Your task to perform on an android device: show emergency info Image 0: 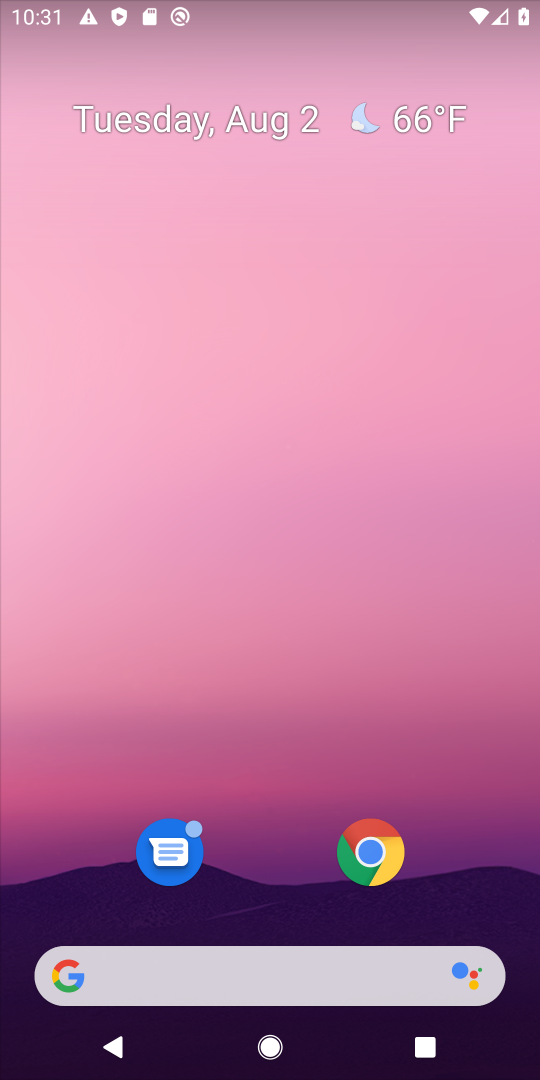
Step 0: drag from (492, 892) to (331, 118)
Your task to perform on an android device: show emergency info Image 1: 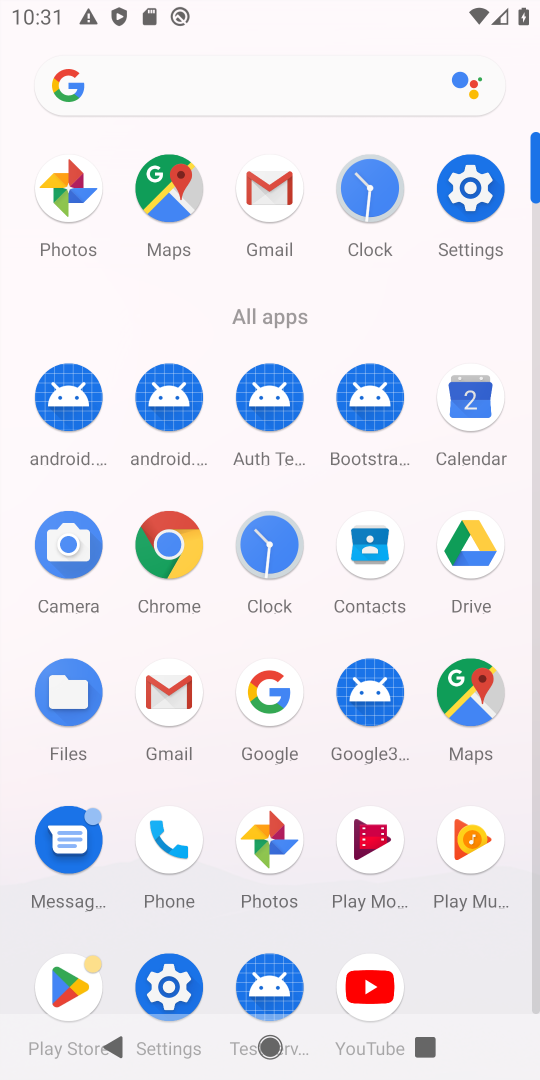
Step 1: click (456, 194)
Your task to perform on an android device: show emergency info Image 2: 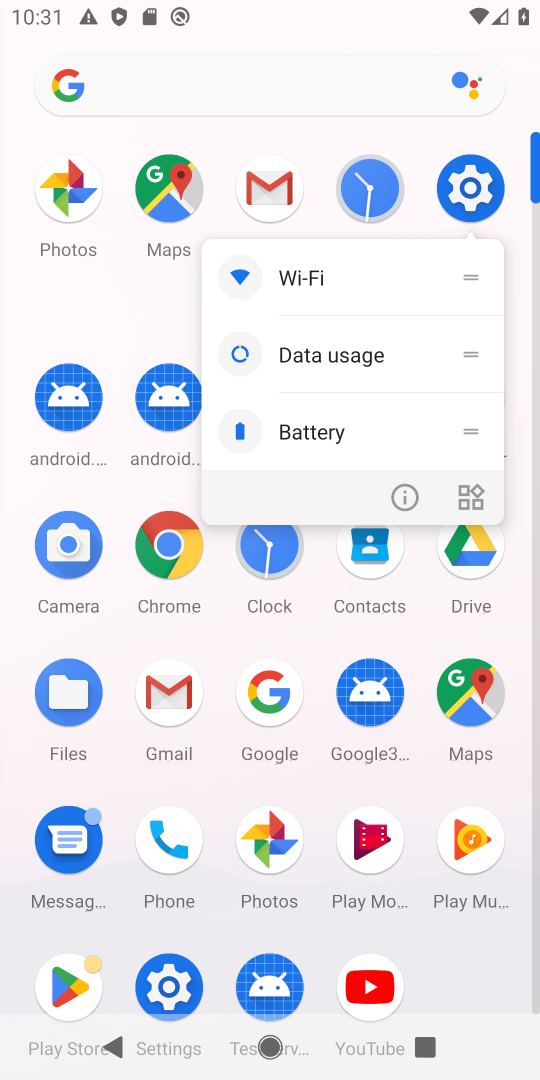
Step 2: click (475, 196)
Your task to perform on an android device: show emergency info Image 3: 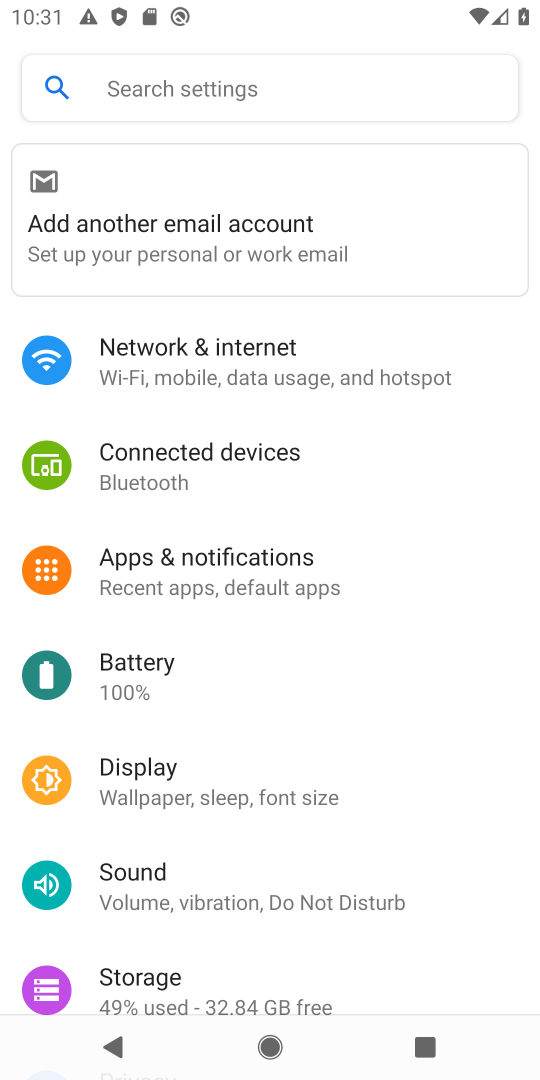
Step 3: drag from (289, 957) to (199, 71)
Your task to perform on an android device: show emergency info Image 4: 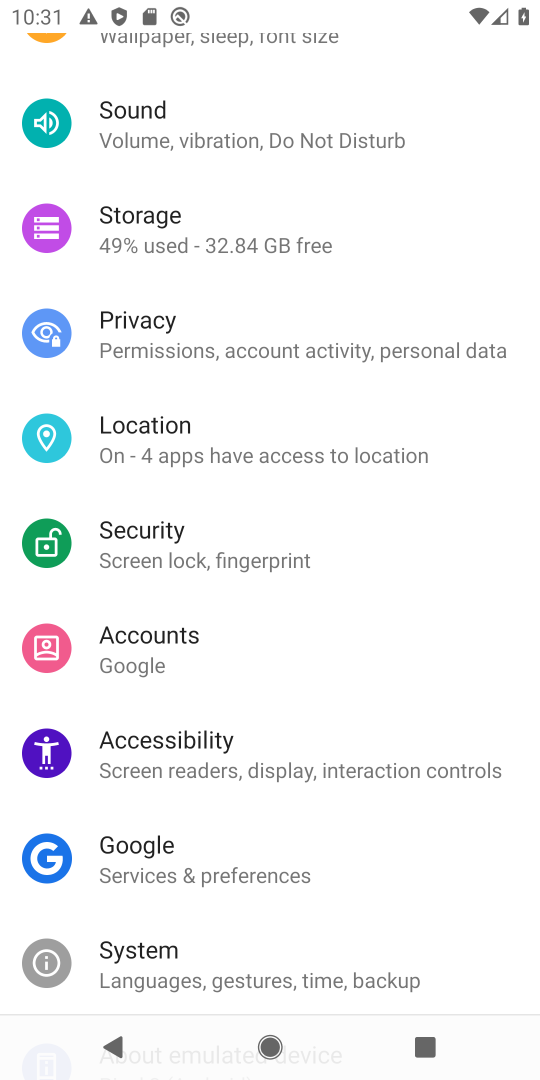
Step 4: drag from (283, 915) to (216, 244)
Your task to perform on an android device: show emergency info Image 5: 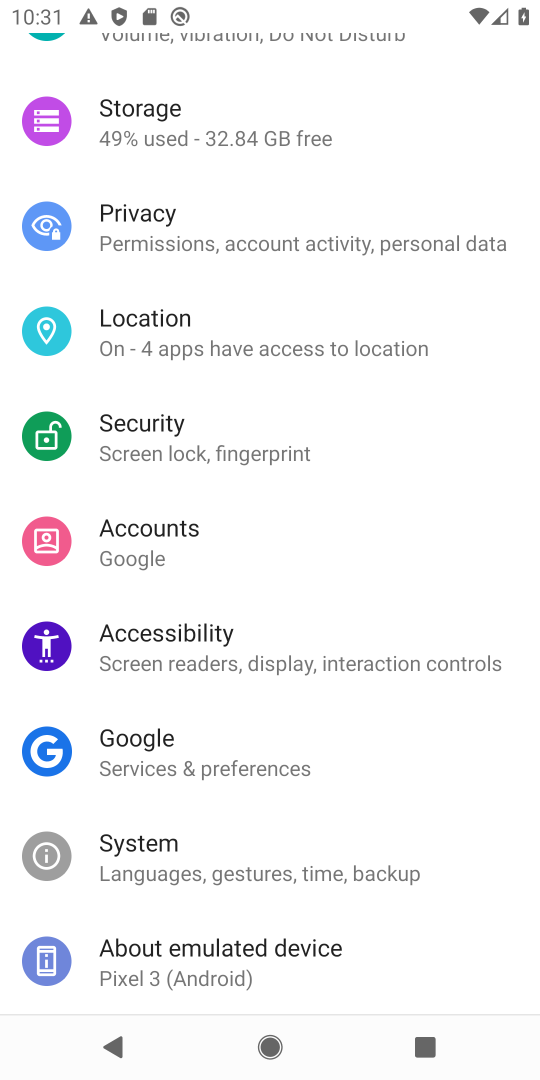
Step 5: click (286, 986)
Your task to perform on an android device: show emergency info Image 6: 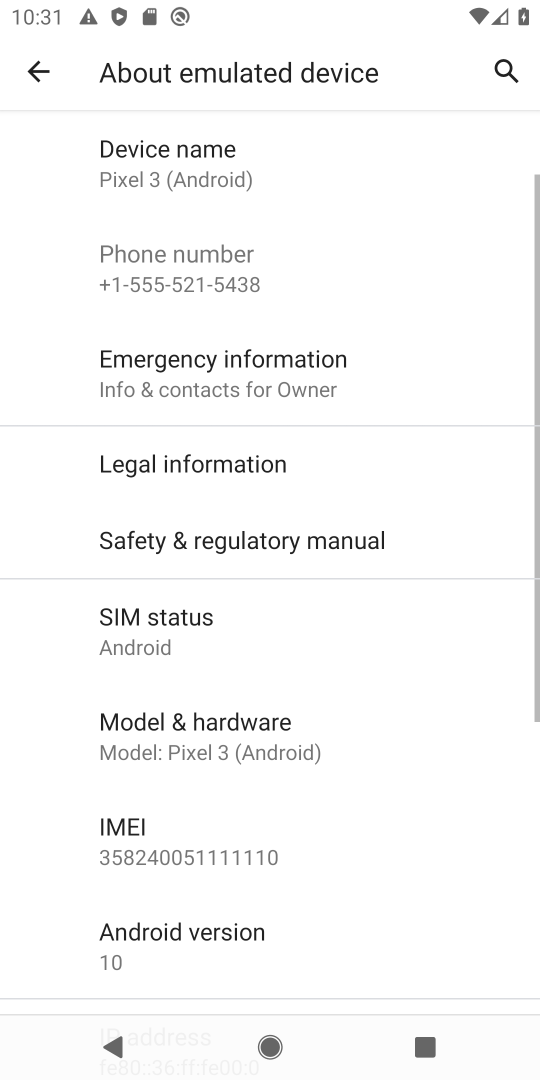
Step 6: click (266, 384)
Your task to perform on an android device: show emergency info Image 7: 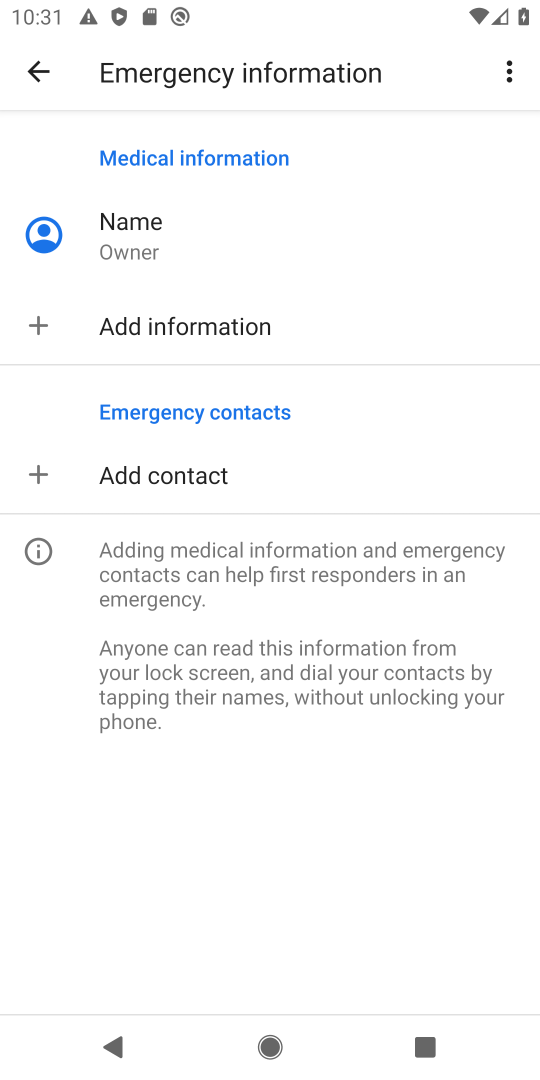
Step 7: task complete